Your task to perform on an android device: create a new album in the google photos Image 0: 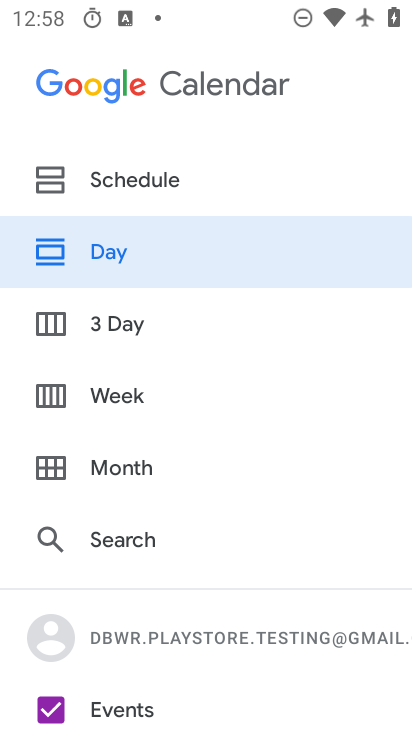
Step 0: press home button
Your task to perform on an android device: create a new album in the google photos Image 1: 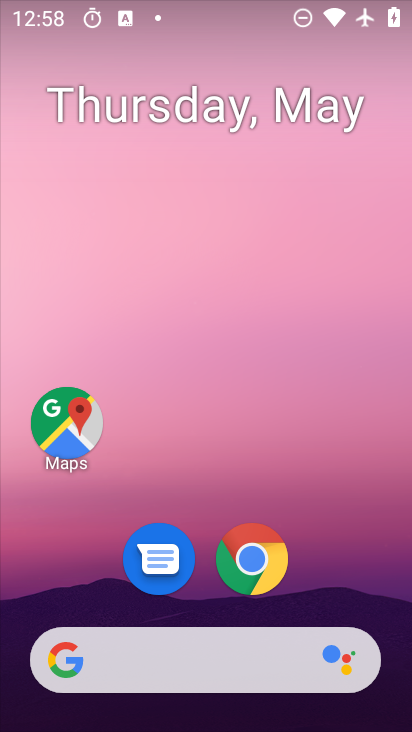
Step 1: drag from (198, 623) to (208, 135)
Your task to perform on an android device: create a new album in the google photos Image 2: 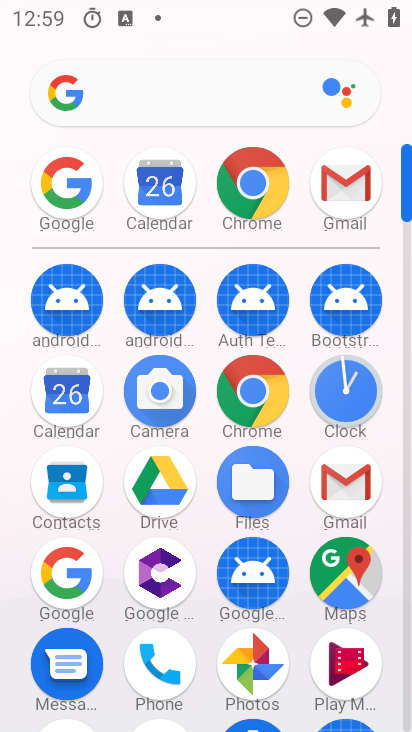
Step 2: click (247, 681)
Your task to perform on an android device: create a new album in the google photos Image 3: 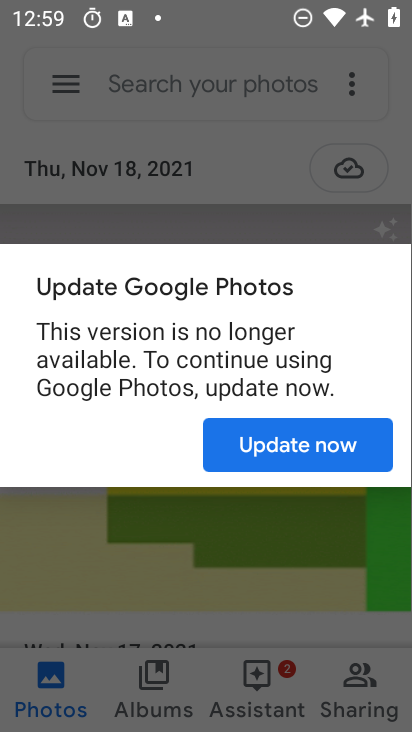
Step 3: task complete